Your task to perform on an android device: choose inbox layout in the gmail app Image 0: 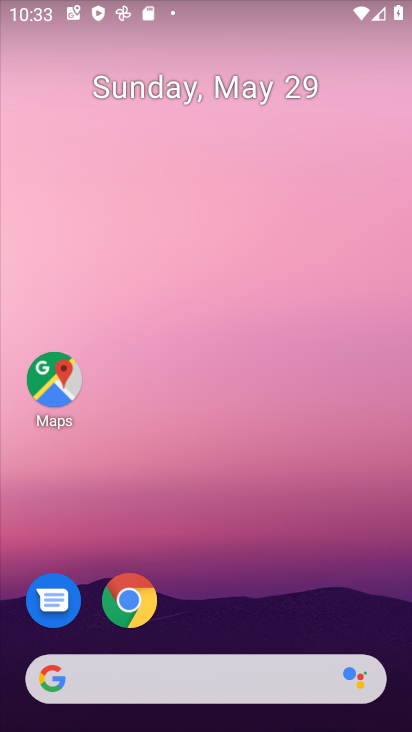
Step 0: drag from (176, 726) to (177, 50)
Your task to perform on an android device: choose inbox layout in the gmail app Image 1: 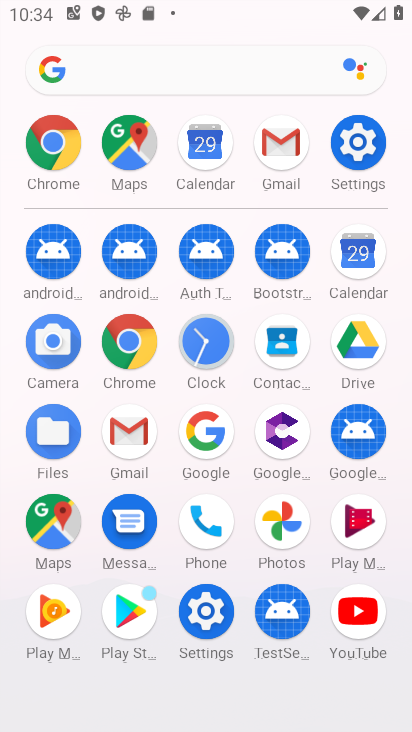
Step 1: click (128, 428)
Your task to perform on an android device: choose inbox layout in the gmail app Image 2: 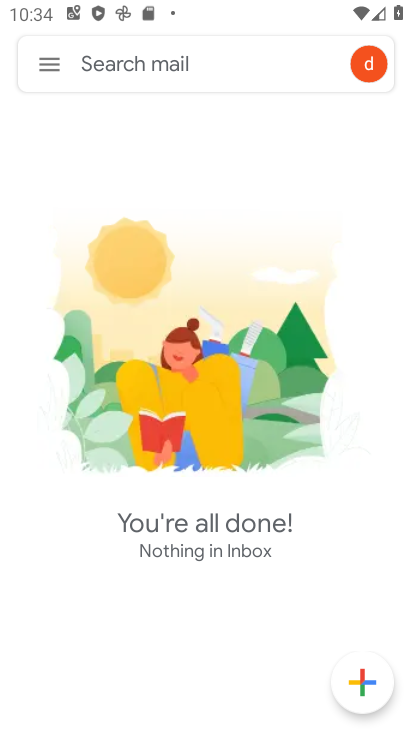
Step 2: click (49, 64)
Your task to perform on an android device: choose inbox layout in the gmail app Image 3: 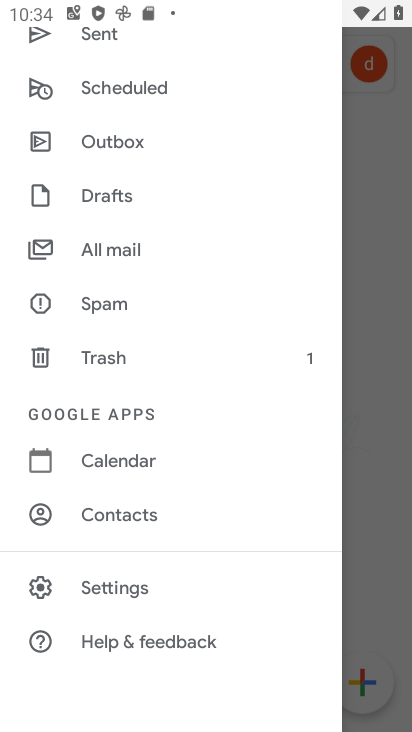
Step 3: click (130, 586)
Your task to perform on an android device: choose inbox layout in the gmail app Image 4: 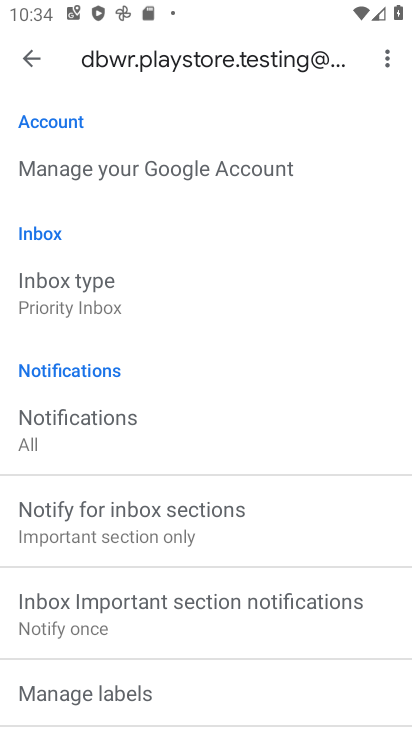
Step 4: click (74, 279)
Your task to perform on an android device: choose inbox layout in the gmail app Image 5: 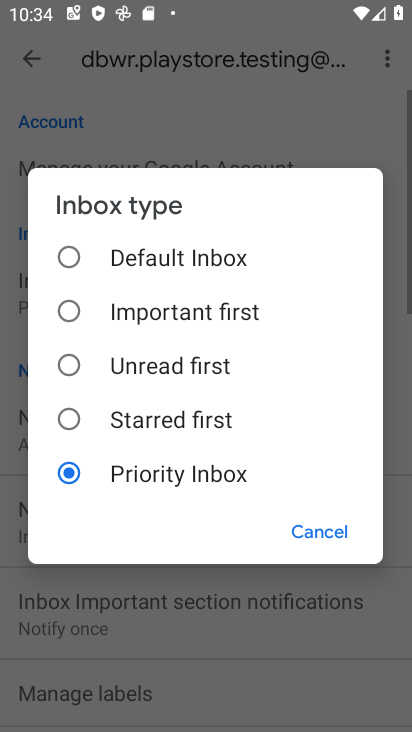
Step 5: click (72, 257)
Your task to perform on an android device: choose inbox layout in the gmail app Image 6: 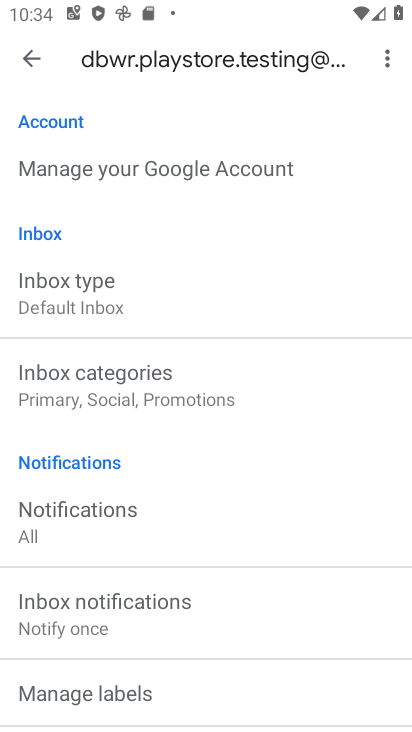
Step 6: task complete